Your task to perform on an android device: install app "Facebook Lite" Image 0: 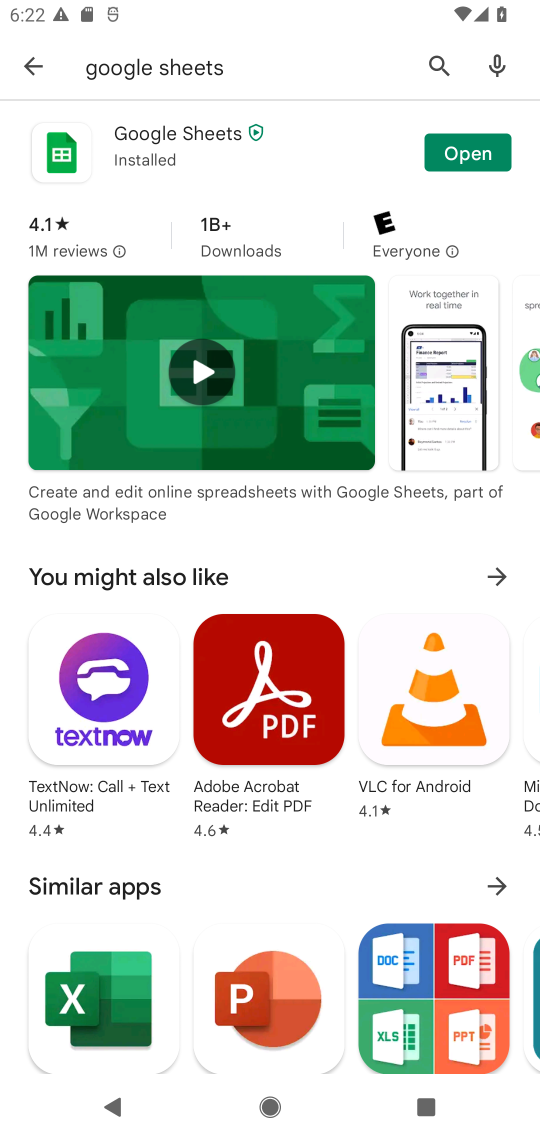
Step 0: click (441, 55)
Your task to perform on an android device: install app "Facebook Lite" Image 1: 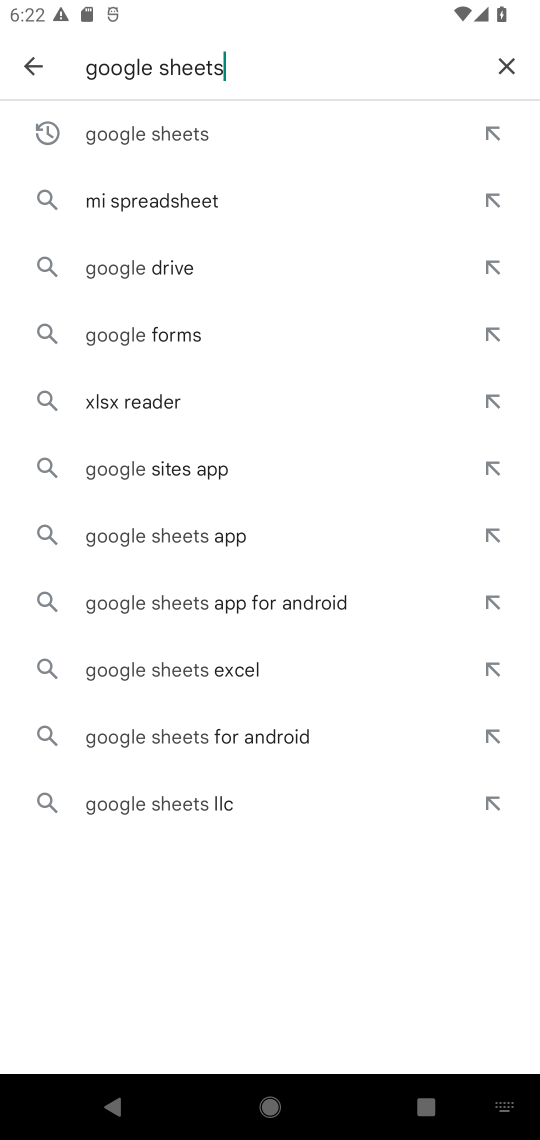
Step 1: click (508, 63)
Your task to perform on an android device: install app "Facebook Lite" Image 2: 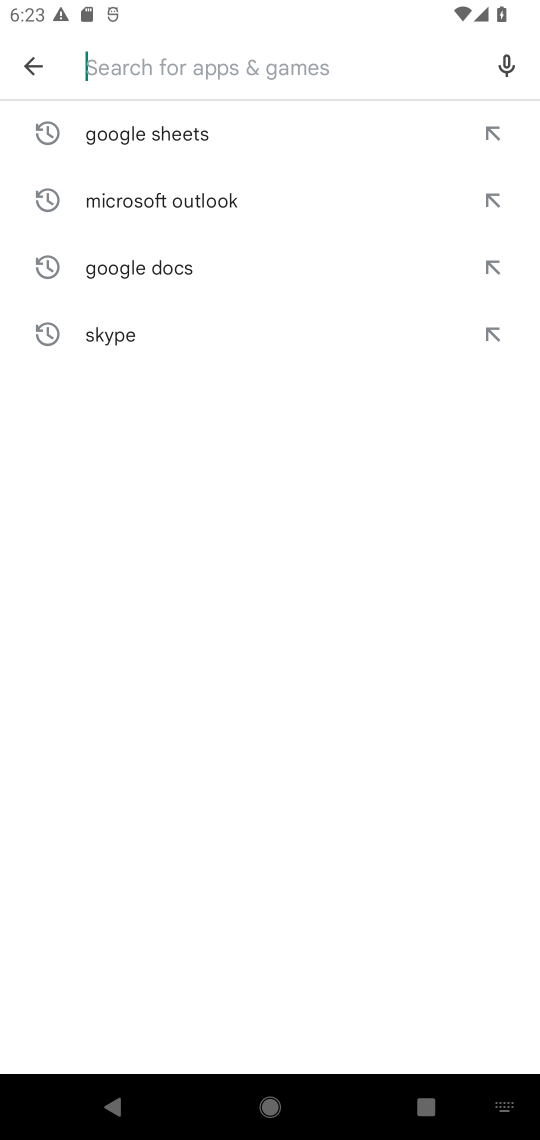
Step 2: type "Facebook Lite"
Your task to perform on an android device: install app "Facebook Lite" Image 3: 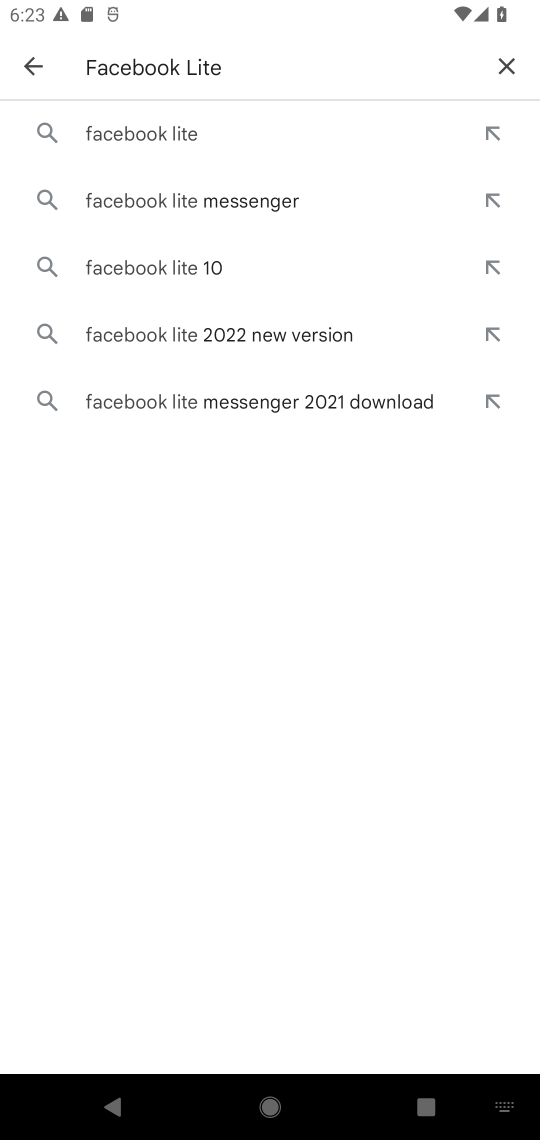
Step 3: click (158, 131)
Your task to perform on an android device: install app "Facebook Lite" Image 4: 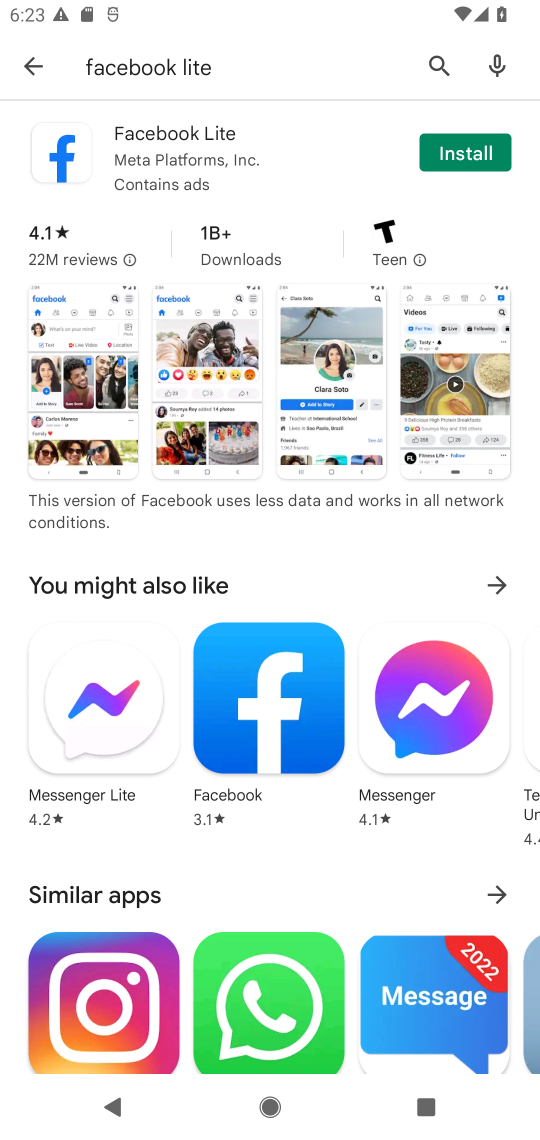
Step 4: click (450, 149)
Your task to perform on an android device: install app "Facebook Lite" Image 5: 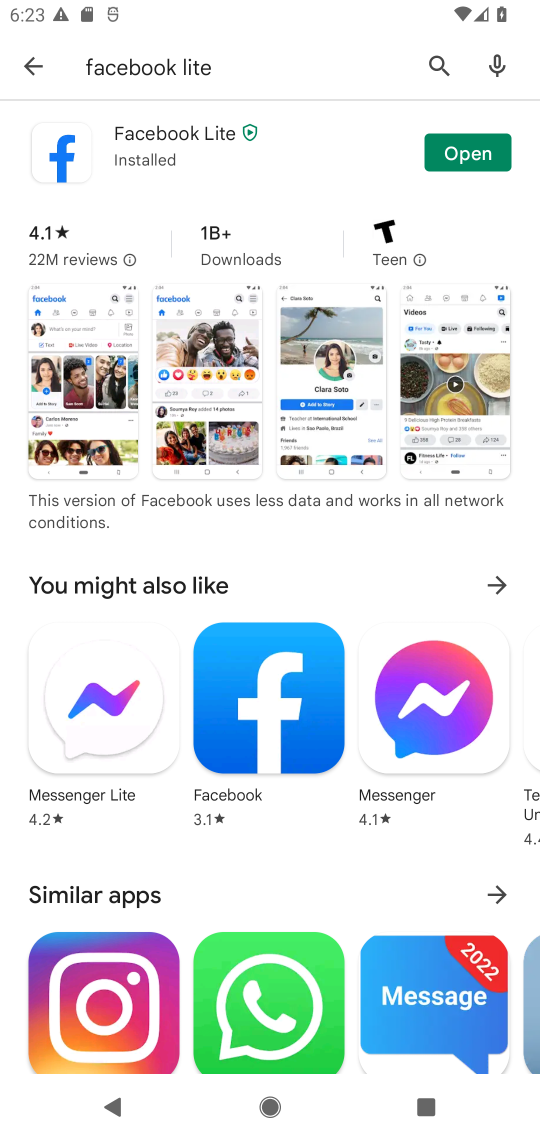
Step 5: click (438, 163)
Your task to perform on an android device: install app "Facebook Lite" Image 6: 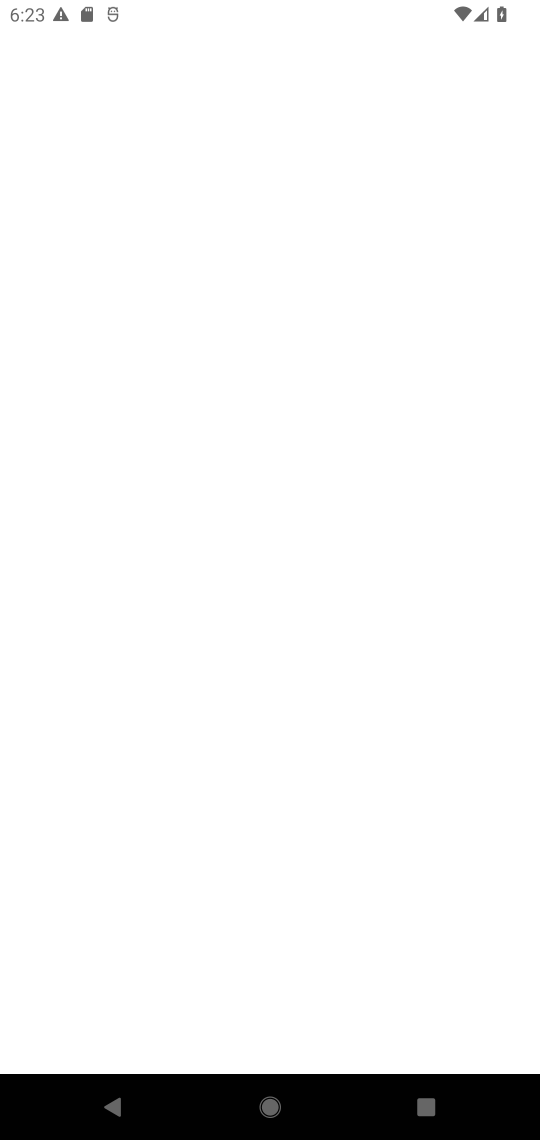
Step 6: task complete